Your task to perform on an android device: add a label to a message in the gmail app Image 0: 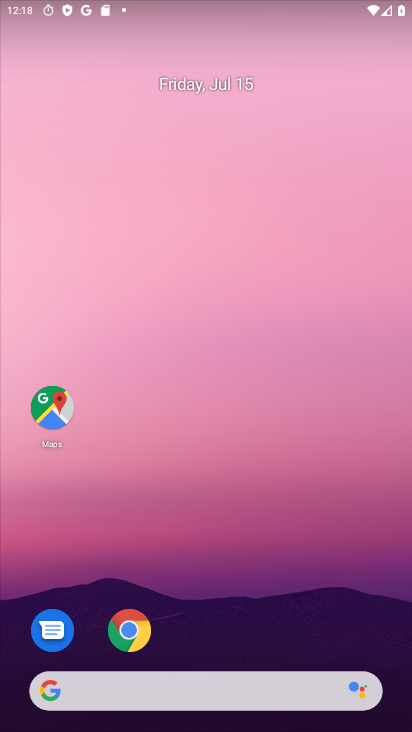
Step 0: drag from (203, 591) to (266, 410)
Your task to perform on an android device: add a label to a message in the gmail app Image 1: 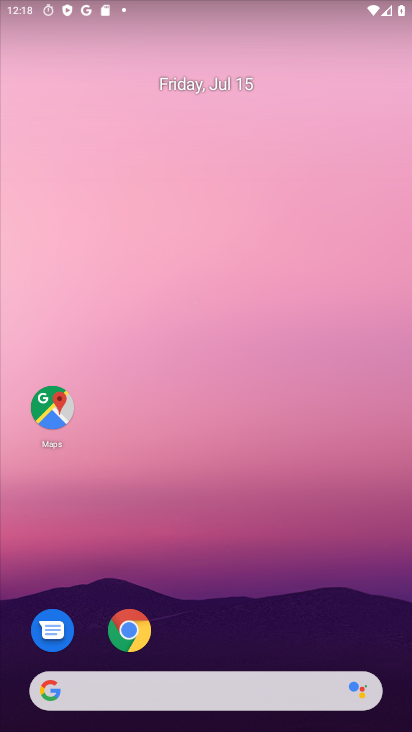
Step 1: drag from (185, 646) to (306, 15)
Your task to perform on an android device: add a label to a message in the gmail app Image 2: 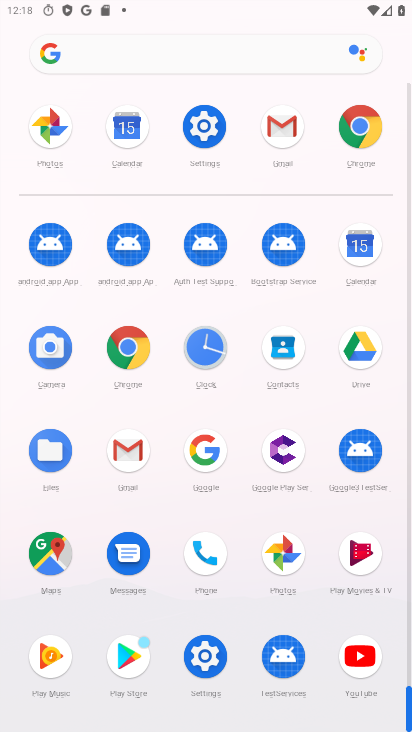
Step 2: click (97, 427)
Your task to perform on an android device: add a label to a message in the gmail app Image 3: 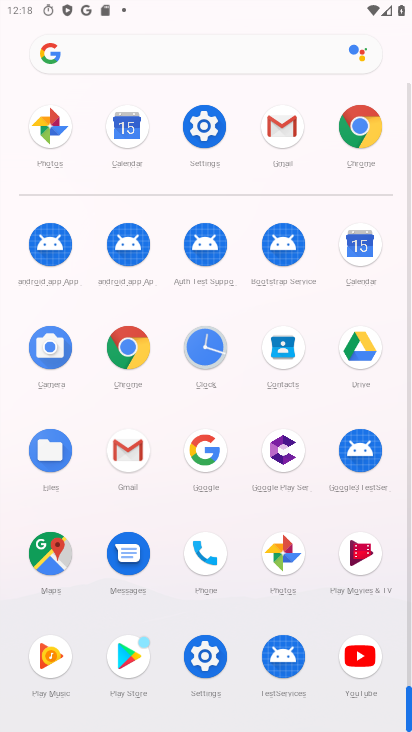
Step 3: click (143, 445)
Your task to perform on an android device: add a label to a message in the gmail app Image 4: 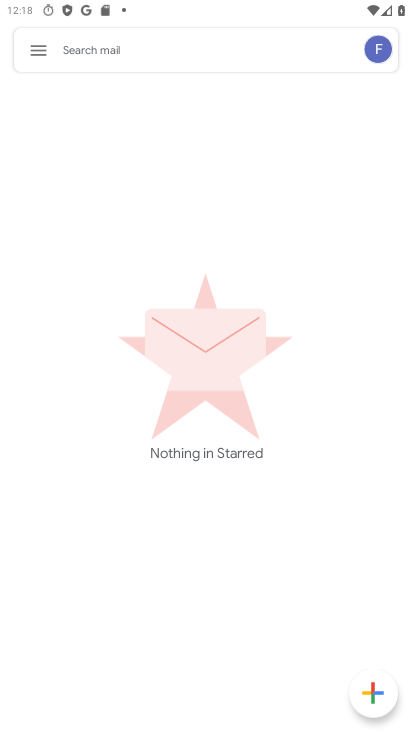
Step 4: drag from (174, 585) to (221, 377)
Your task to perform on an android device: add a label to a message in the gmail app Image 5: 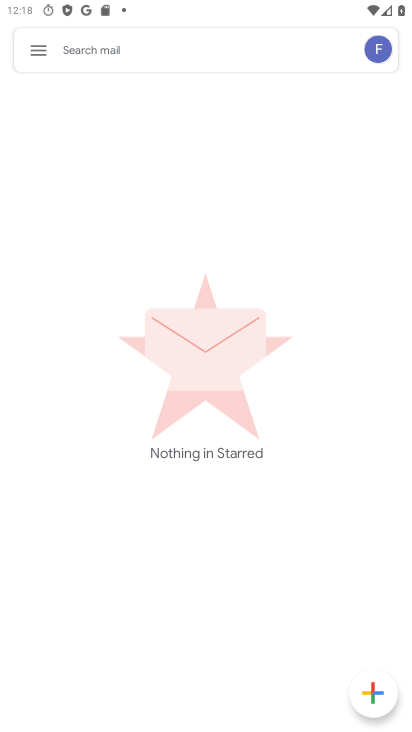
Step 5: click (40, 61)
Your task to perform on an android device: add a label to a message in the gmail app Image 6: 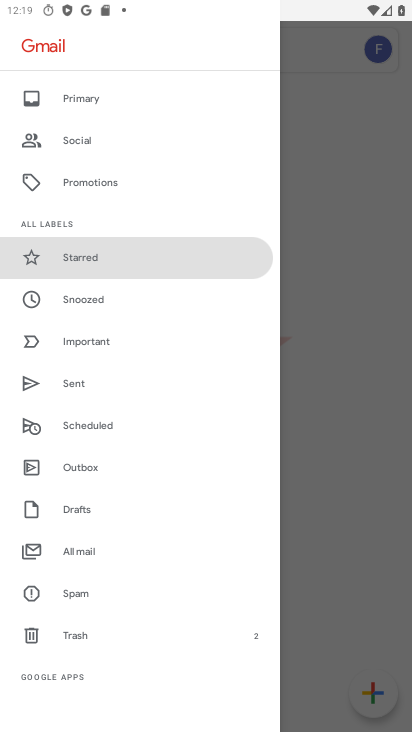
Step 6: drag from (187, 554) to (232, 243)
Your task to perform on an android device: add a label to a message in the gmail app Image 7: 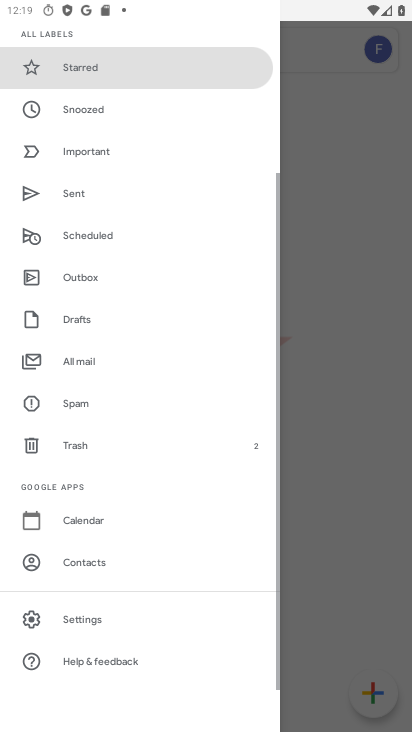
Step 7: click (352, 444)
Your task to perform on an android device: add a label to a message in the gmail app Image 8: 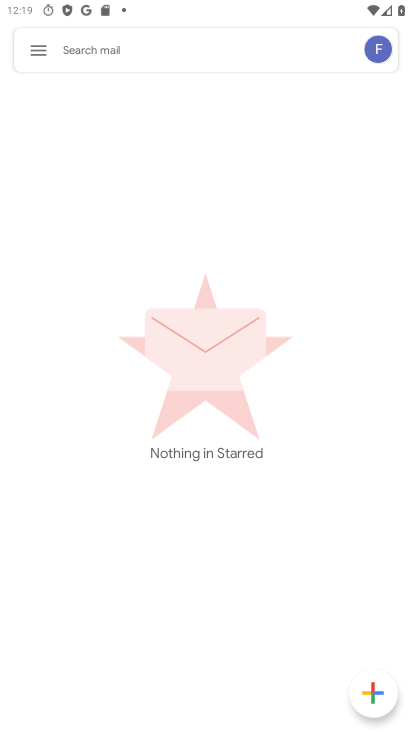
Step 8: task complete